Your task to perform on an android device: Open my contact list Image 0: 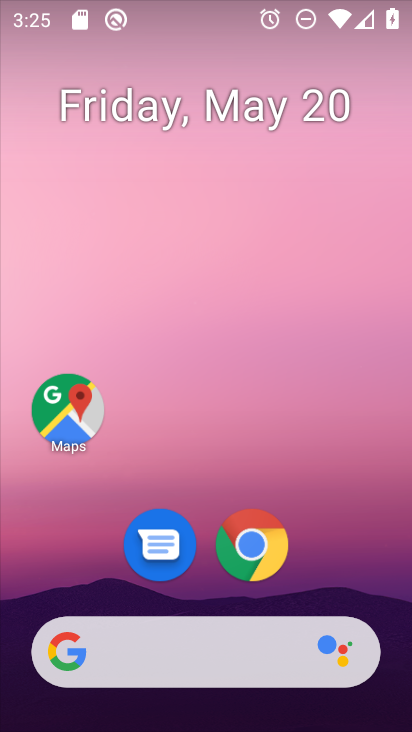
Step 0: drag from (347, 545) to (269, 91)
Your task to perform on an android device: Open my contact list Image 1: 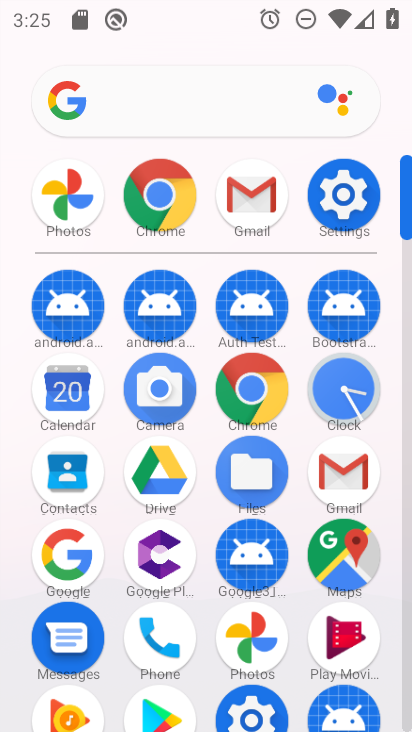
Step 1: click (65, 467)
Your task to perform on an android device: Open my contact list Image 2: 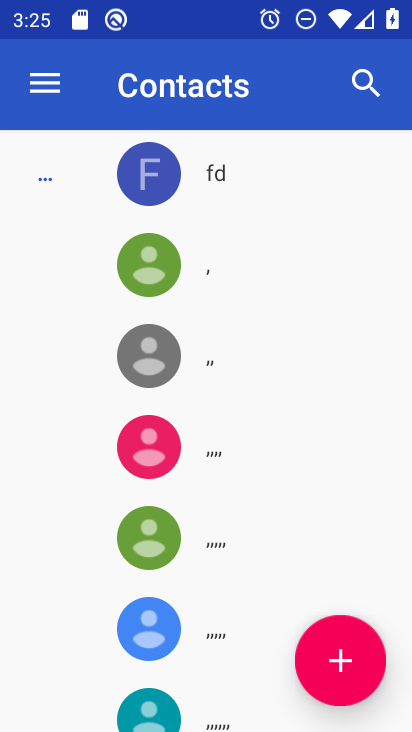
Step 2: task complete